Your task to perform on an android device: all mails in gmail Image 0: 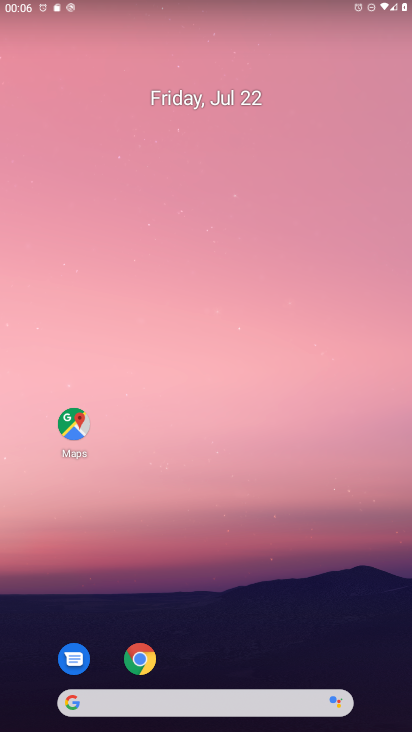
Step 0: drag from (208, 695) to (151, 252)
Your task to perform on an android device: all mails in gmail Image 1: 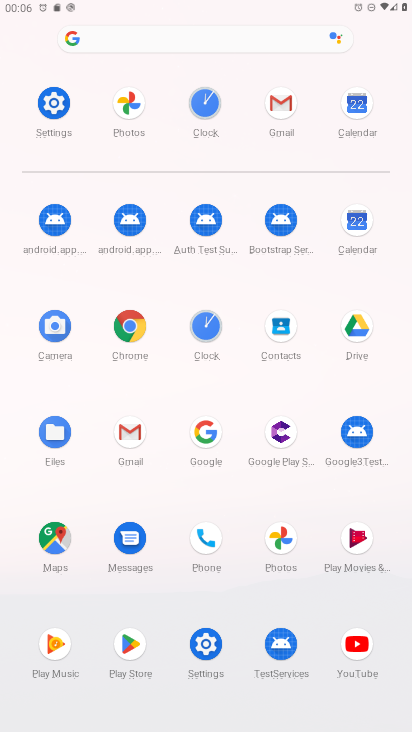
Step 1: click (281, 98)
Your task to perform on an android device: all mails in gmail Image 2: 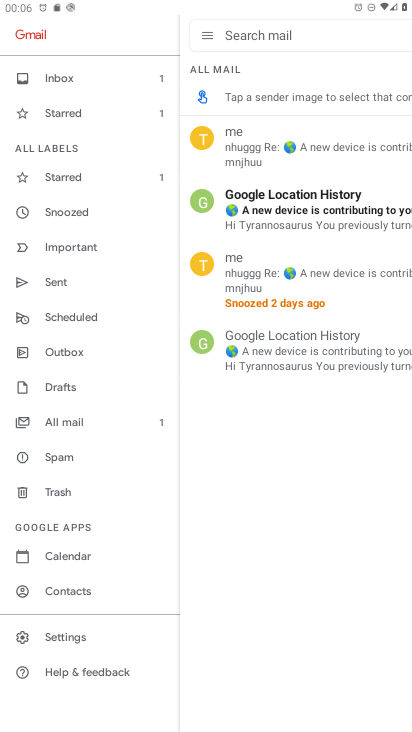
Step 2: click (64, 420)
Your task to perform on an android device: all mails in gmail Image 3: 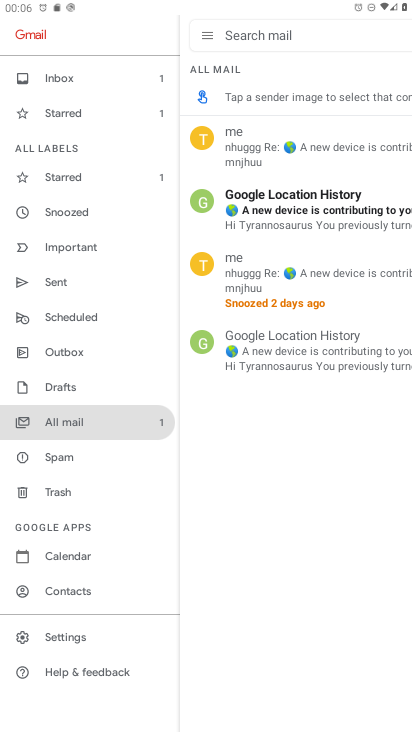
Step 3: task complete